Your task to perform on an android device: Go to Amazon Image 0: 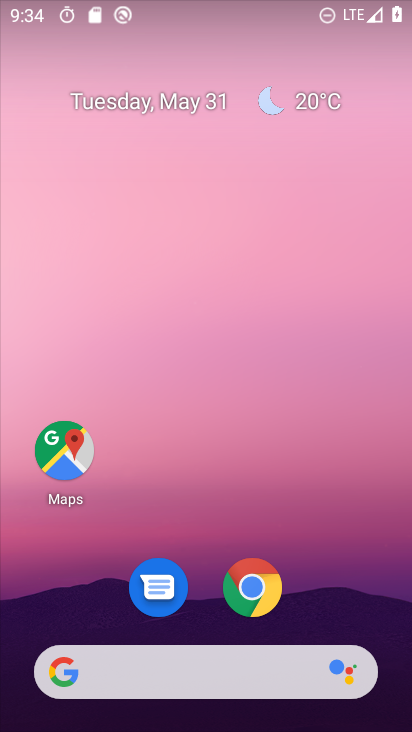
Step 0: click (62, 456)
Your task to perform on an android device: Go to Amazon Image 1: 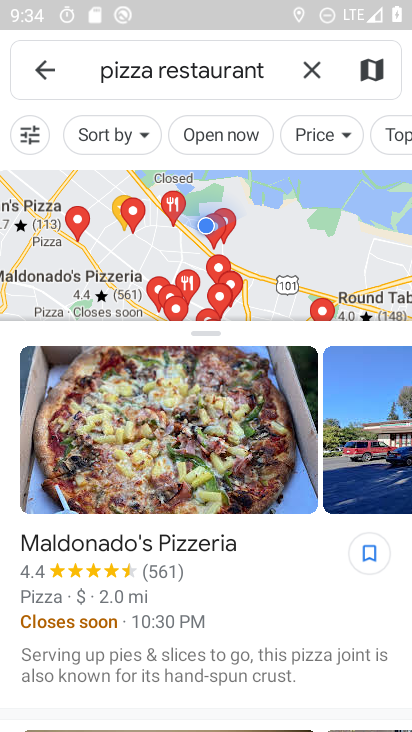
Step 1: press home button
Your task to perform on an android device: Go to Amazon Image 2: 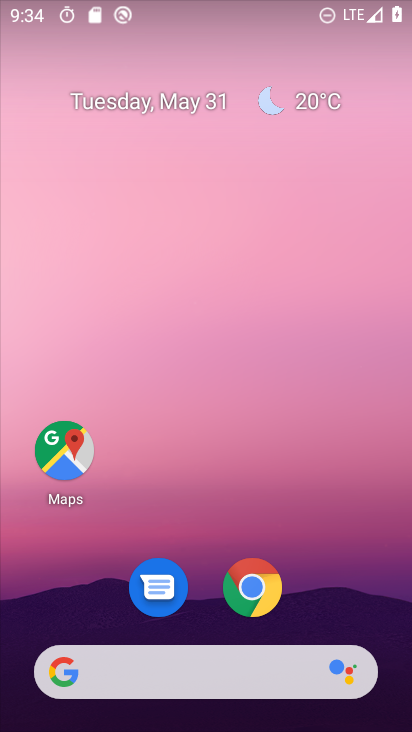
Step 2: click (255, 588)
Your task to perform on an android device: Go to Amazon Image 3: 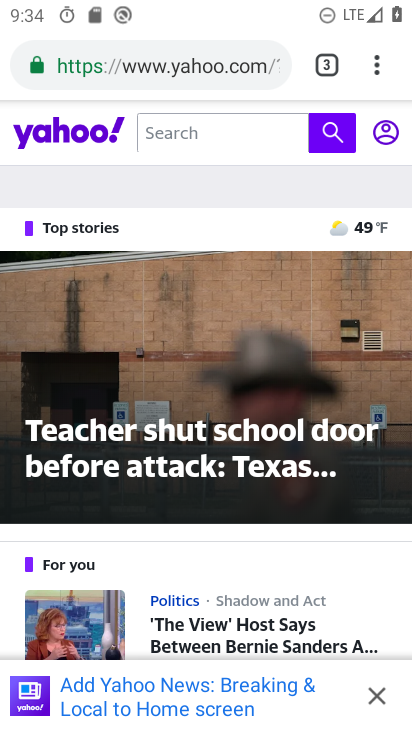
Step 3: click (338, 55)
Your task to perform on an android device: Go to Amazon Image 4: 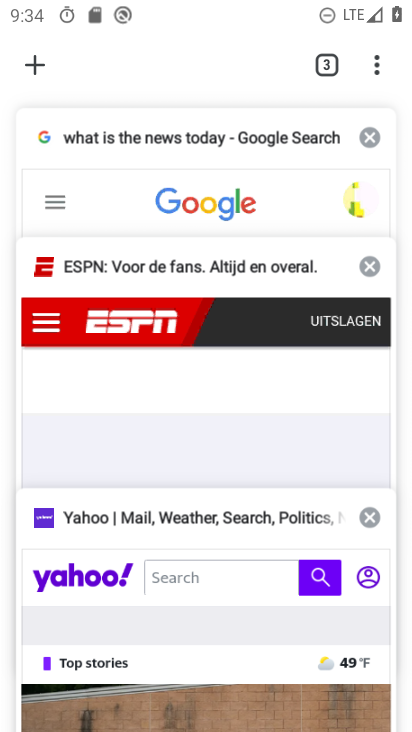
Step 4: click (33, 72)
Your task to perform on an android device: Go to Amazon Image 5: 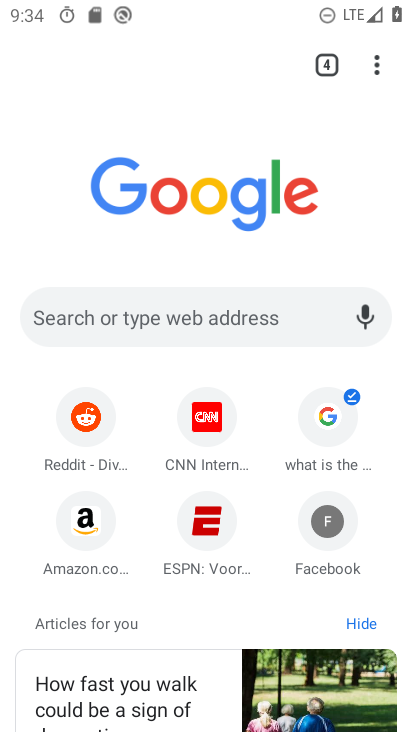
Step 5: click (95, 506)
Your task to perform on an android device: Go to Amazon Image 6: 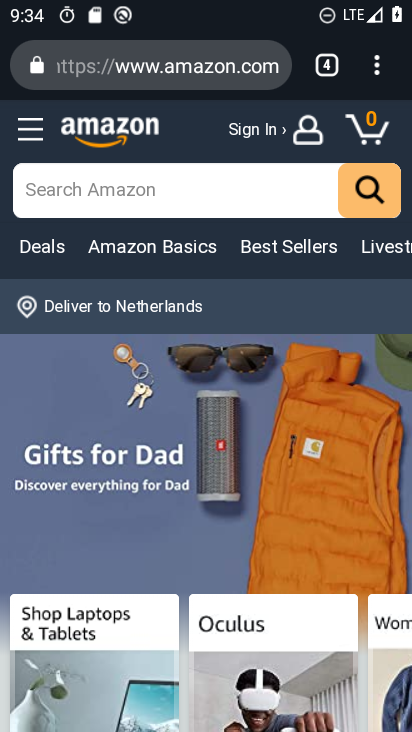
Step 6: task complete